Your task to perform on an android device: toggle priority inbox in the gmail app Image 0: 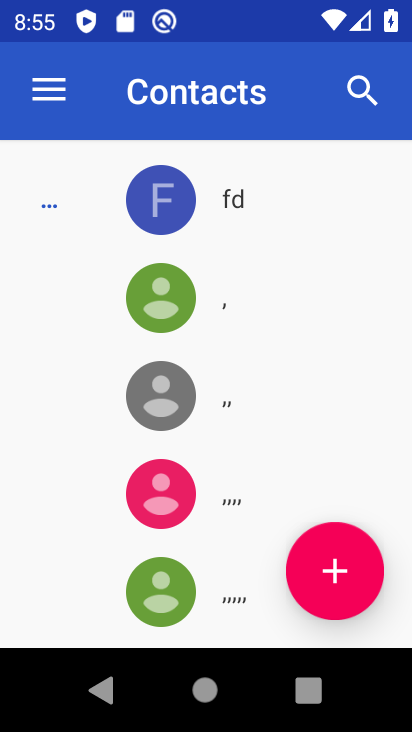
Step 0: press home button
Your task to perform on an android device: toggle priority inbox in the gmail app Image 1: 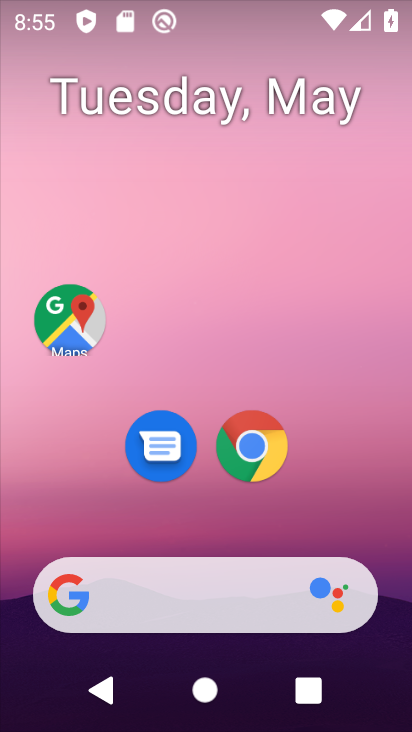
Step 1: drag from (379, 541) to (382, 173)
Your task to perform on an android device: toggle priority inbox in the gmail app Image 2: 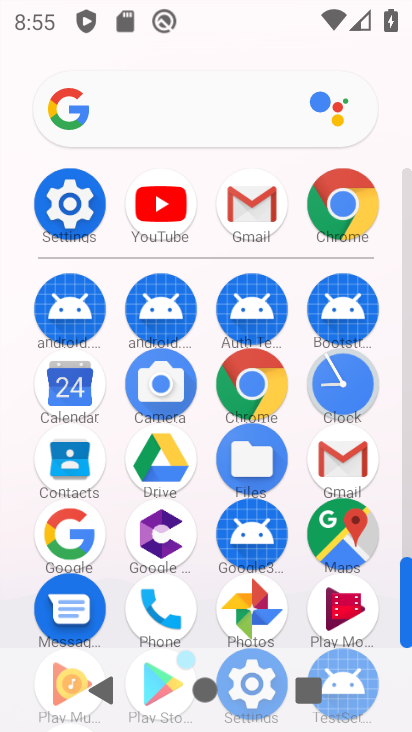
Step 2: click (362, 463)
Your task to perform on an android device: toggle priority inbox in the gmail app Image 3: 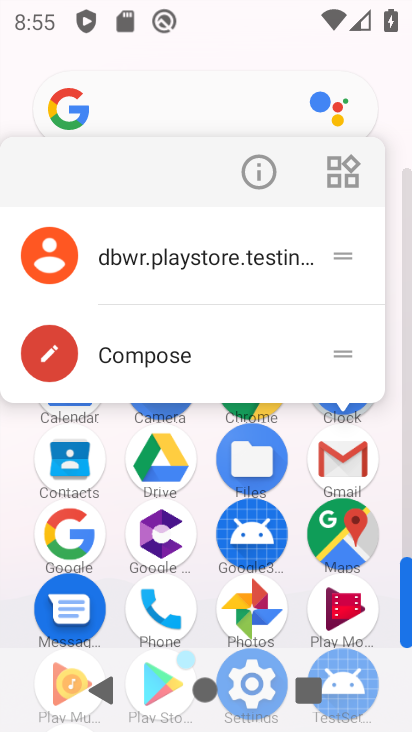
Step 3: click (362, 463)
Your task to perform on an android device: toggle priority inbox in the gmail app Image 4: 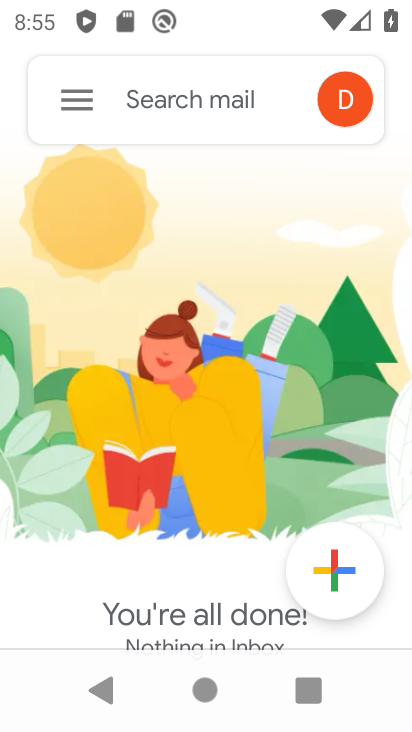
Step 4: click (92, 104)
Your task to perform on an android device: toggle priority inbox in the gmail app Image 5: 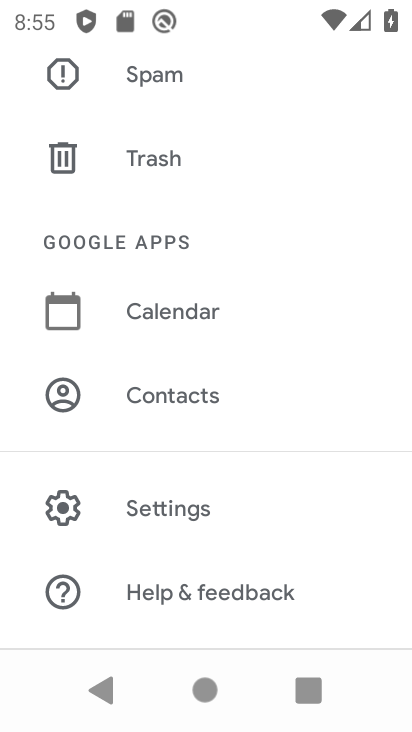
Step 5: click (221, 524)
Your task to perform on an android device: toggle priority inbox in the gmail app Image 6: 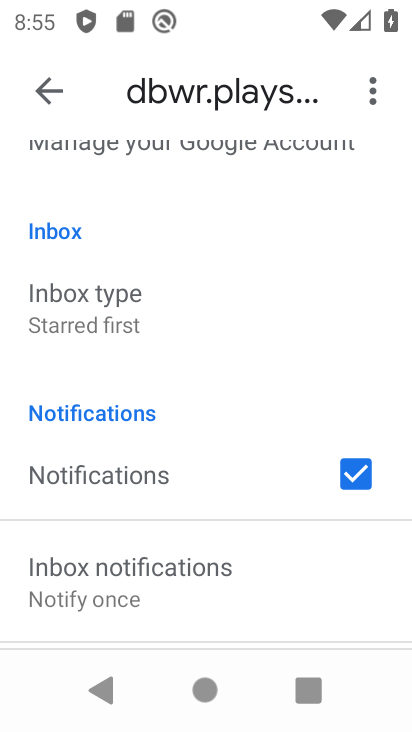
Step 6: drag from (301, 576) to (305, 474)
Your task to perform on an android device: toggle priority inbox in the gmail app Image 7: 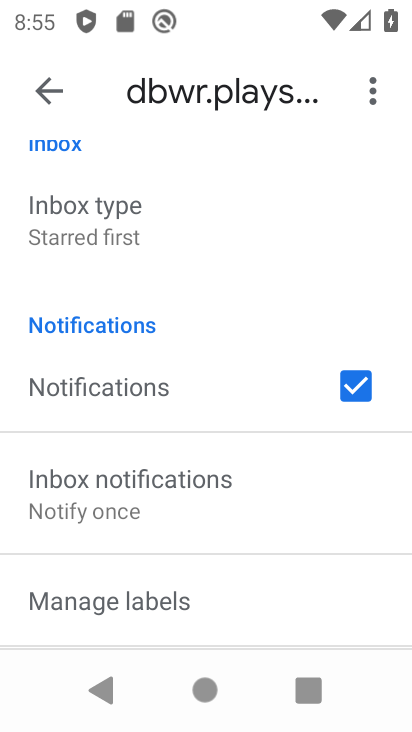
Step 7: drag from (309, 594) to (309, 482)
Your task to perform on an android device: toggle priority inbox in the gmail app Image 8: 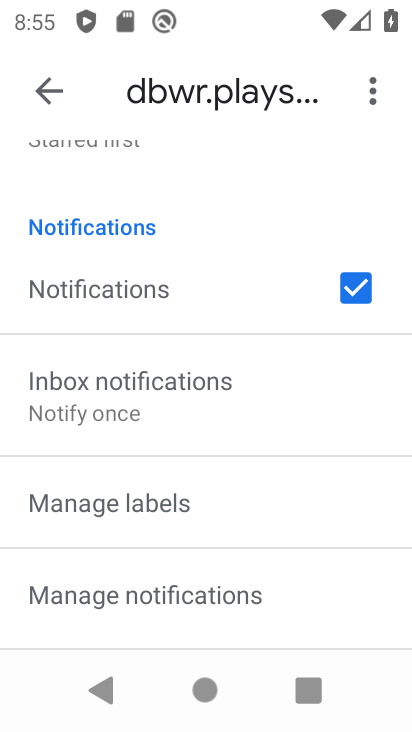
Step 8: drag from (323, 581) to (325, 477)
Your task to perform on an android device: toggle priority inbox in the gmail app Image 9: 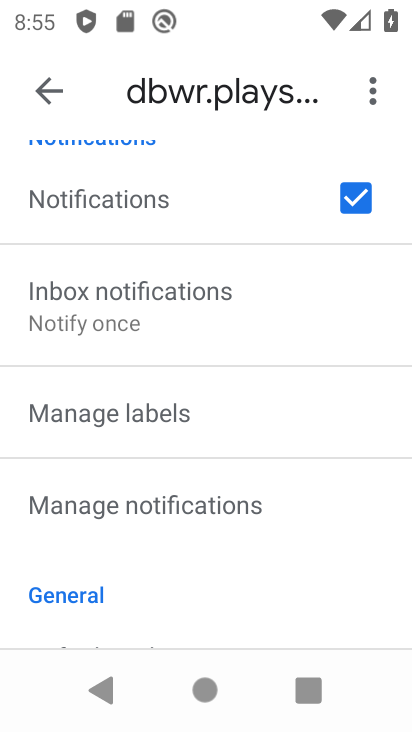
Step 9: drag from (318, 574) to (326, 443)
Your task to perform on an android device: toggle priority inbox in the gmail app Image 10: 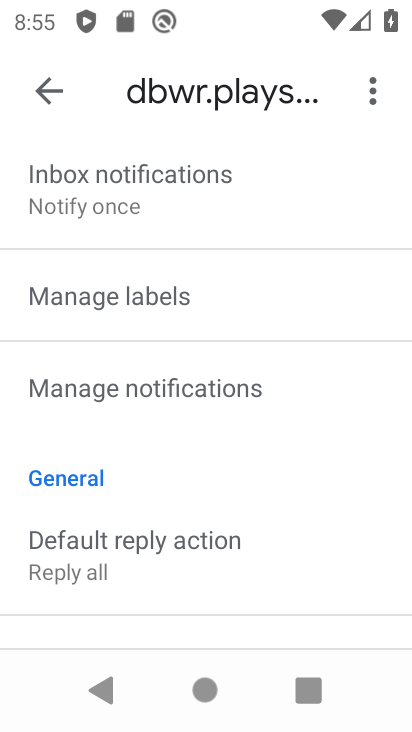
Step 10: drag from (338, 566) to (346, 454)
Your task to perform on an android device: toggle priority inbox in the gmail app Image 11: 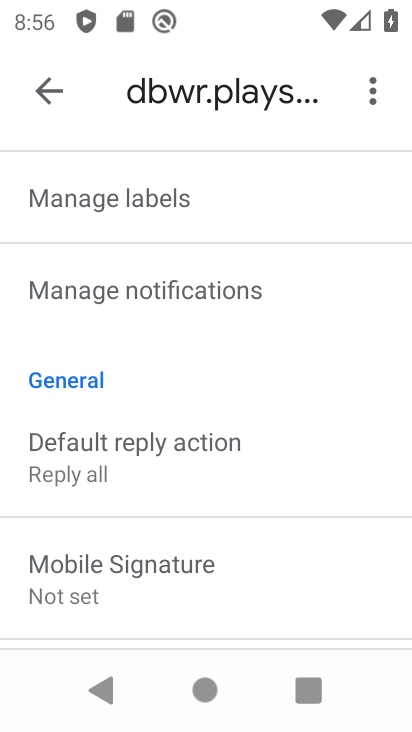
Step 11: drag from (361, 241) to (362, 329)
Your task to perform on an android device: toggle priority inbox in the gmail app Image 12: 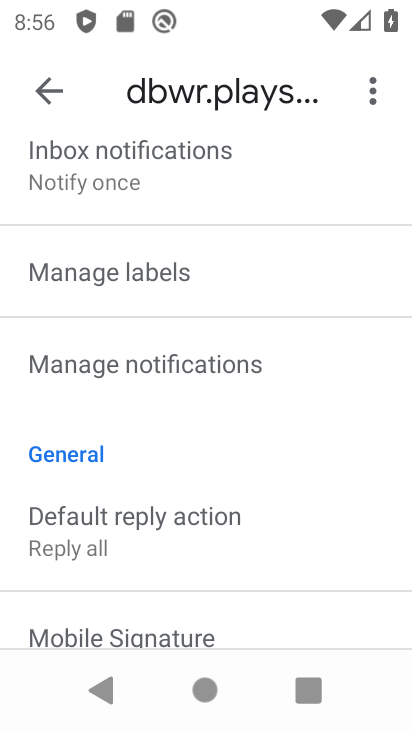
Step 12: drag from (365, 249) to (354, 332)
Your task to perform on an android device: toggle priority inbox in the gmail app Image 13: 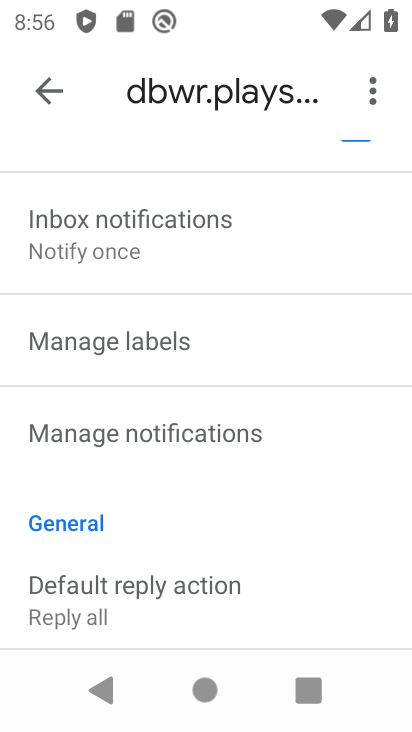
Step 13: drag from (339, 219) to (338, 298)
Your task to perform on an android device: toggle priority inbox in the gmail app Image 14: 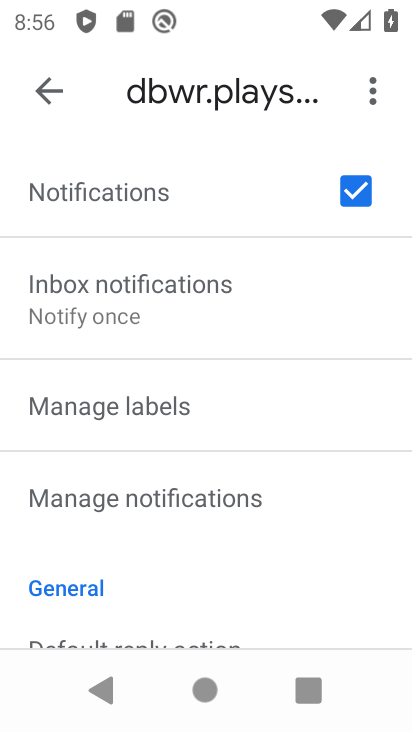
Step 14: drag from (290, 209) to (287, 291)
Your task to perform on an android device: toggle priority inbox in the gmail app Image 15: 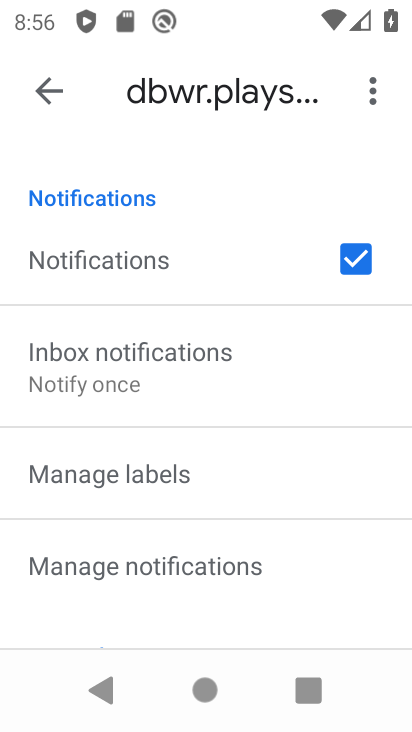
Step 15: drag from (287, 193) to (282, 284)
Your task to perform on an android device: toggle priority inbox in the gmail app Image 16: 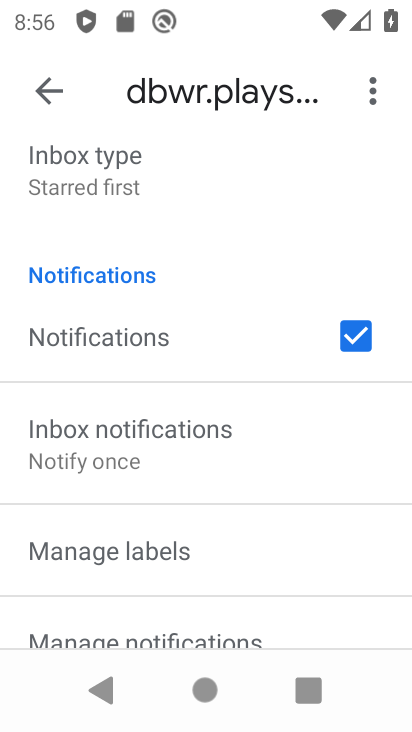
Step 16: drag from (280, 183) to (280, 245)
Your task to perform on an android device: toggle priority inbox in the gmail app Image 17: 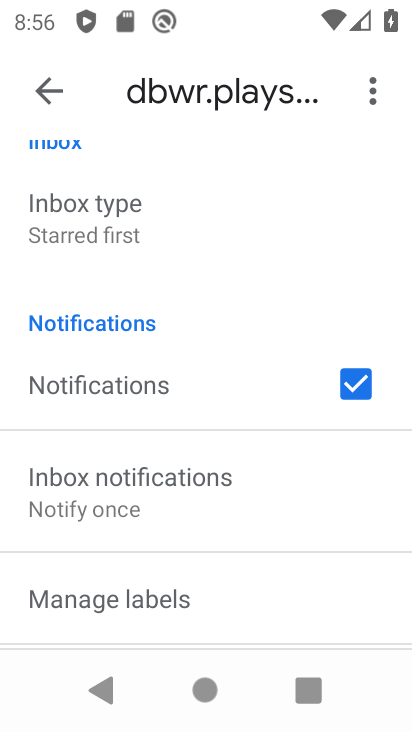
Step 17: click (135, 244)
Your task to perform on an android device: toggle priority inbox in the gmail app Image 18: 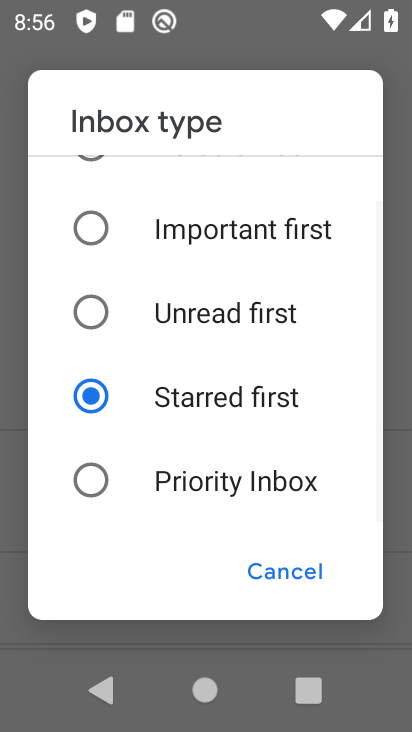
Step 18: click (214, 495)
Your task to perform on an android device: toggle priority inbox in the gmail app Image 19: 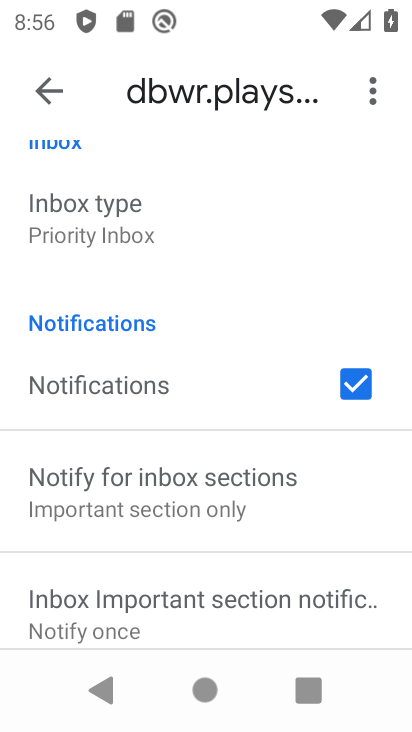
Step 19: task complete